Your task to perform on an android device: open sync settings in chrome Image 0: 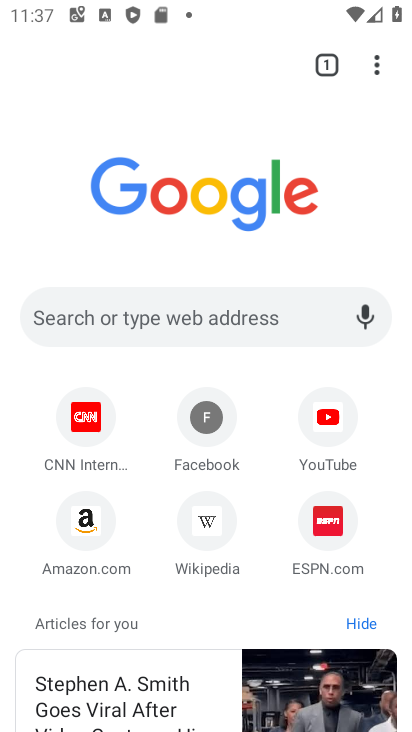
Step 0: press home button
Your task to perform on an android device: open sync settings in chrome Image 1: 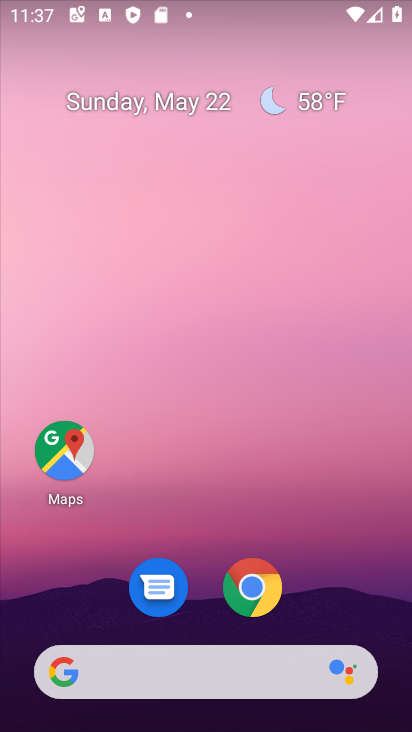
Step 1: click (254, 584)
Your task to perform on an android device: open sync settings in chrome Image 2: 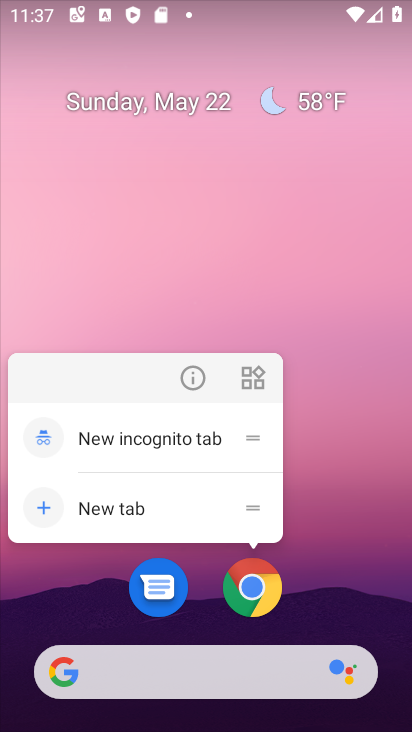
Step 2: click (253, 580)
Your task to perform on an android device: open sync settings in chrome Image 3: 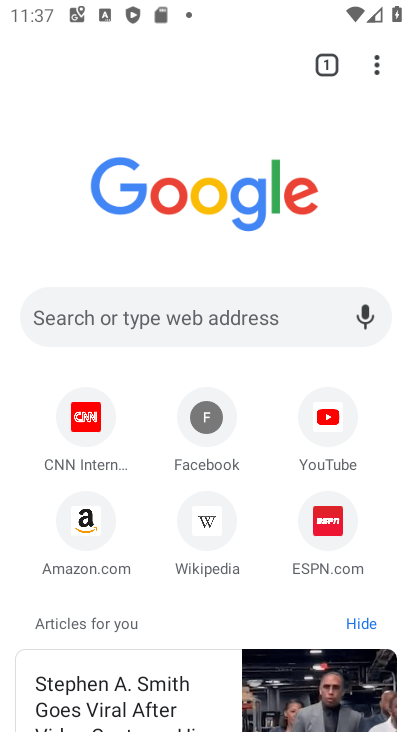
Step 3: click (370, 61)
Your task to perform on an android device: open sync settings in chrome Image 4: 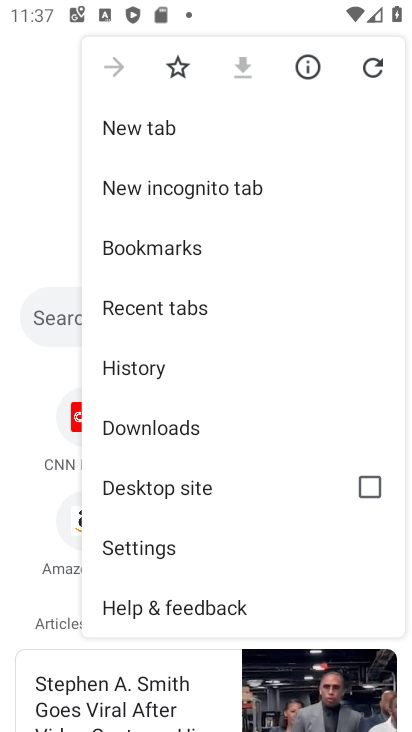
Step 4: click (224, 535)
Your task to perform on an android device: open sync settings in chrome Image 5: 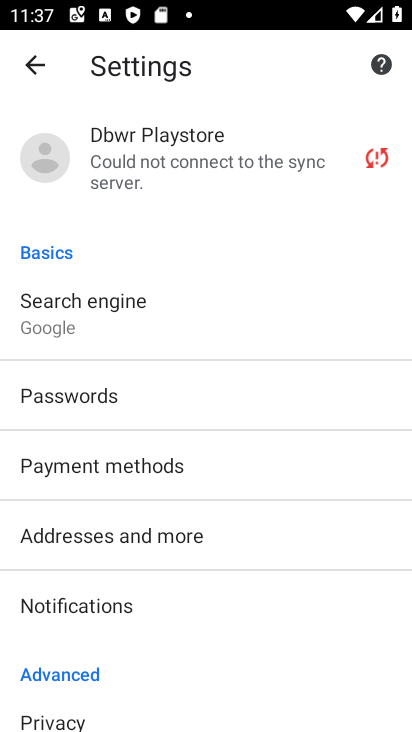
Step 5: click (188, 148)
Your task to perform on an android device: open sync settings in chrome Image 6: 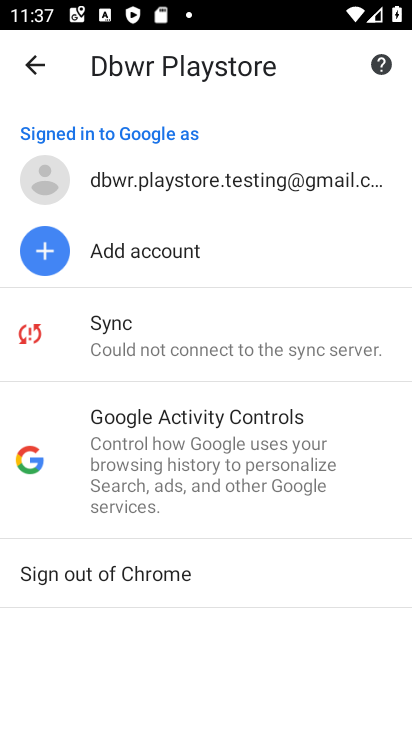
Step 6: click (168, 325)
Your task to perform on an android device: open sync settings in chrome Image 7: 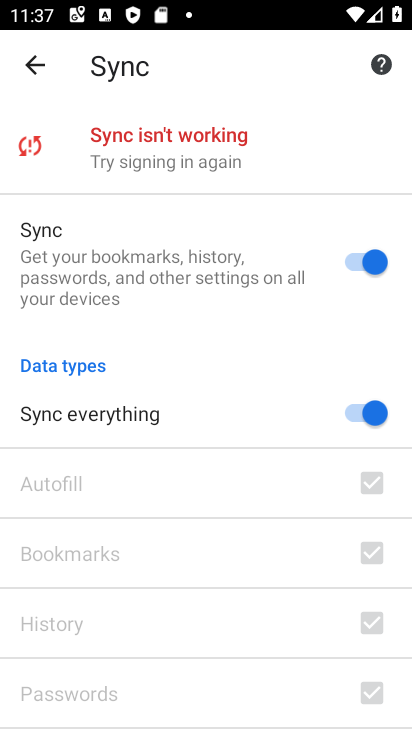
Step 7: task complete